Your task to perform on an android device: set the timer Image 0: 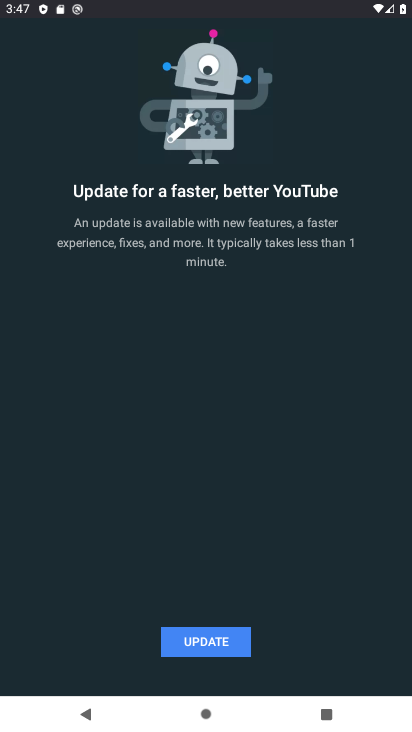
Step 0: drag from (233, 691) to (250, 316)
Your task to perform on an android device: set the timer Image 1: 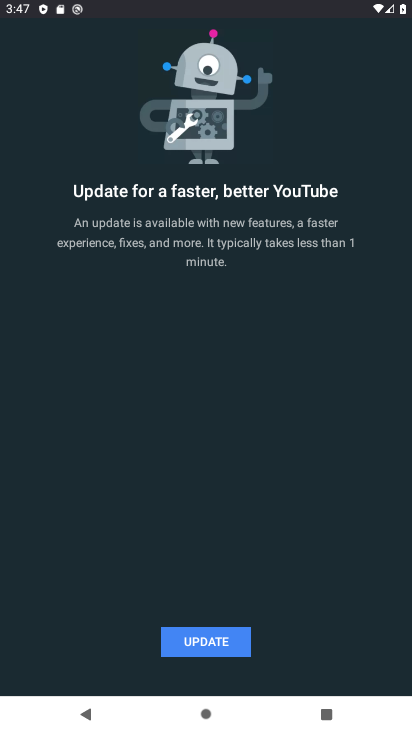
Step 1: press home button
Your task to perform on an android device: set the timer Image 2: 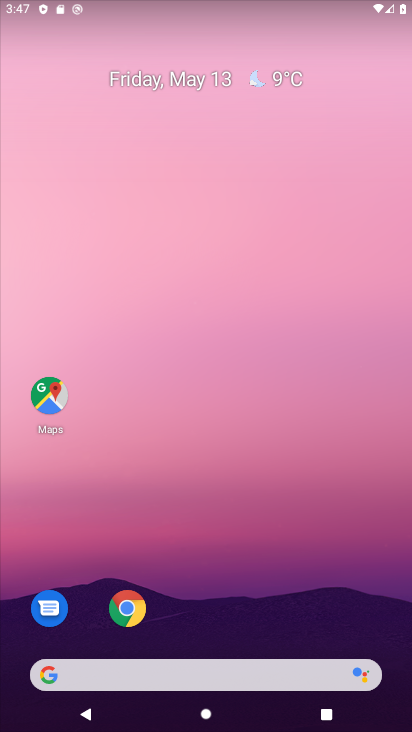
Step 2: drag from (196, 660) to (231, 290)
Your task to perform on an android device: set the timer Image 3: 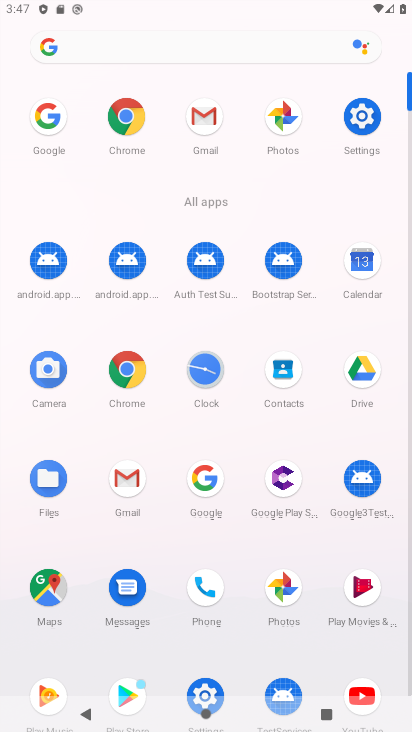
Step 3: click (193, 372)
Your task to perform on an android device: set the timer Image 4: 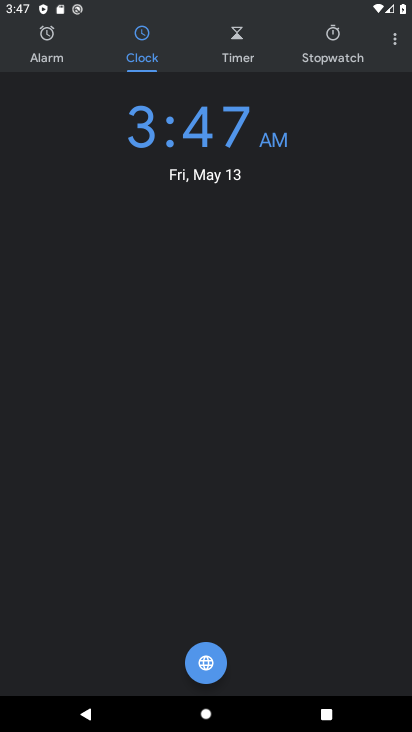
Step 4: click (242, 48)
Your task to perform on an android device: set the timer Image 5: 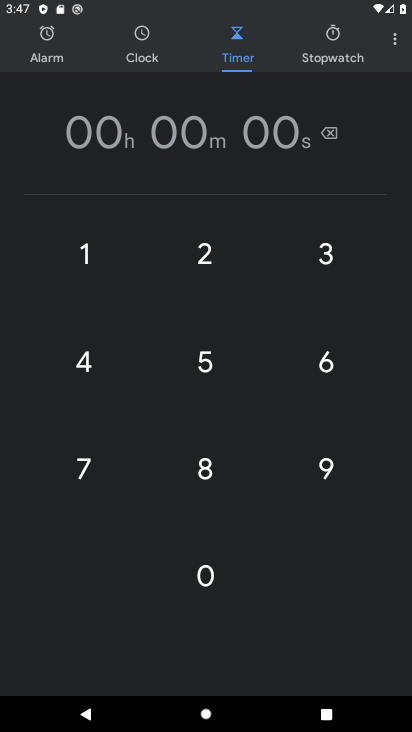
Step 5: click (192, 575)
Your task to perform on an android device: set the timer Image 6: 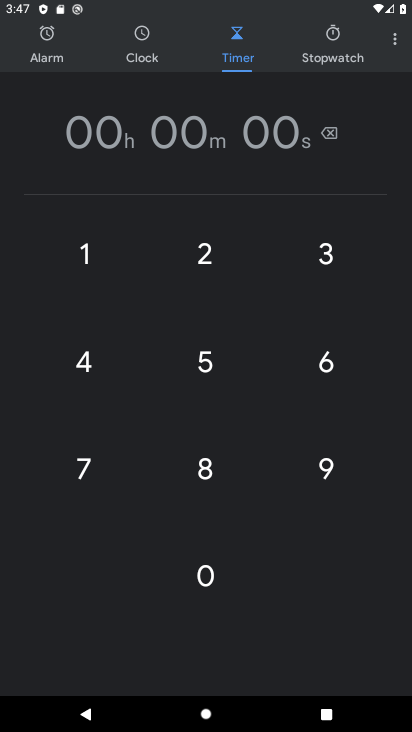
Step 6: click (218, 468)
Your task to perform on an android device: set the timer Image 7: 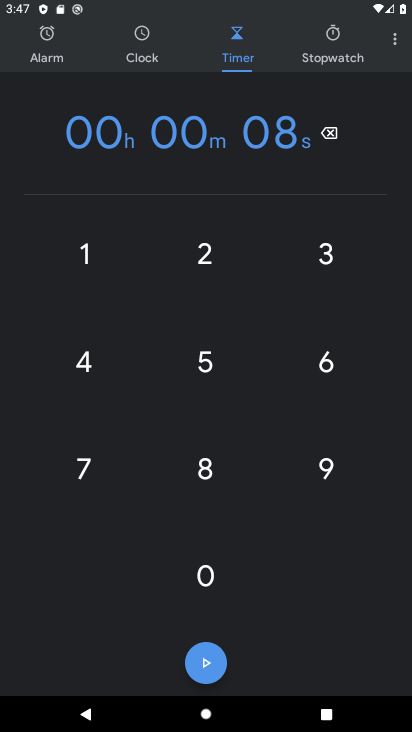
Step 7: click (204, 590)
Your task to perform on an android device: set the timer Image 8: 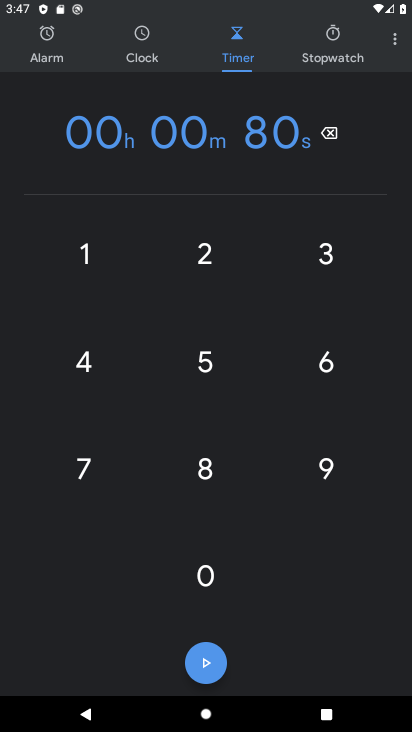
Step 8: click (206, 352)
Your task to perform on an android device: set the timer Image 9: 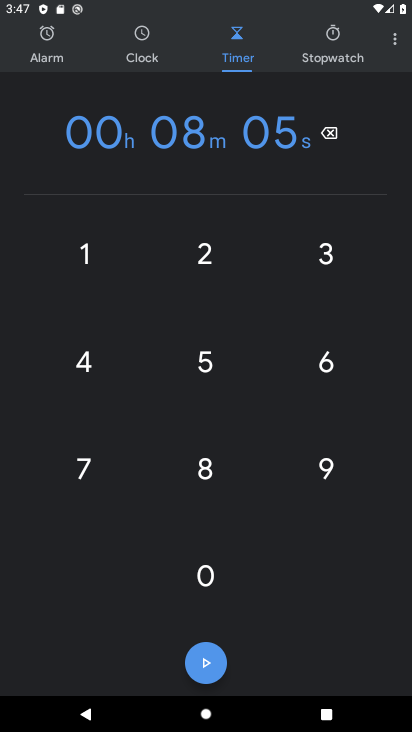
Step 9: click (216, 661)
Your task to perform on an android device: set the timer Image 10: 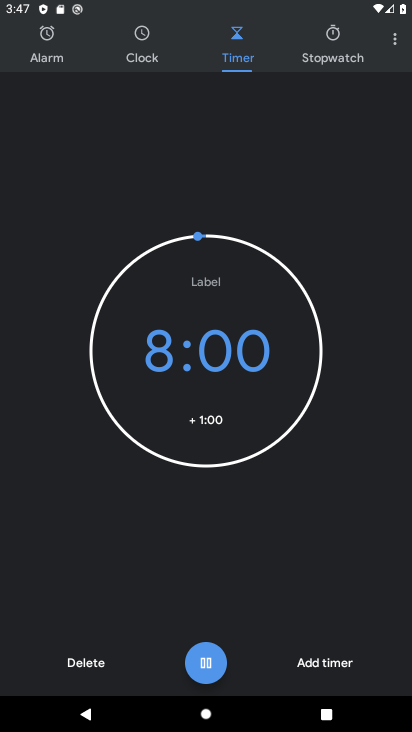
Step 10: task complete